Your task to perform on an android device: install app "LiveIn - Share Your Moment" Image 0: 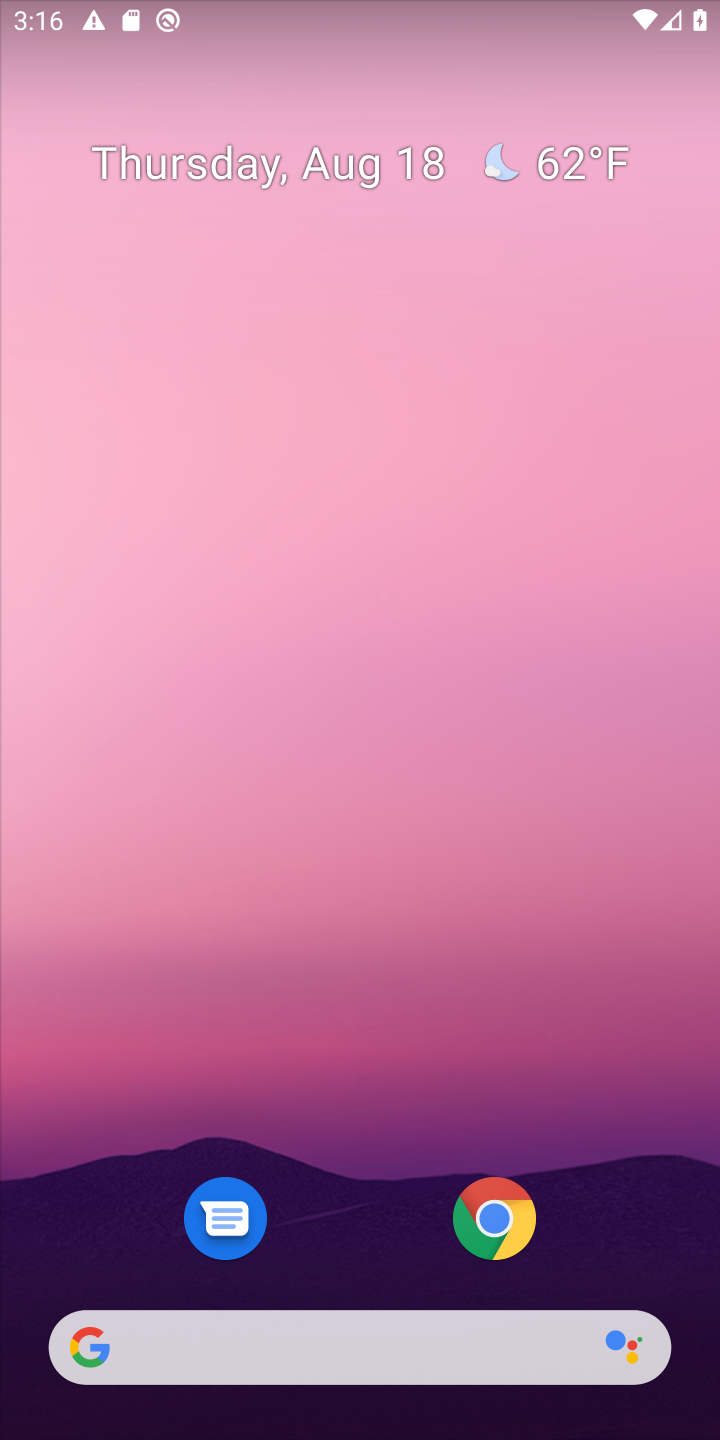
Step 0: drag from (352, 1147) to (327, 376)
Your task to perform on an android device: install app "LiveIn - Share Your Moment" Image 1: 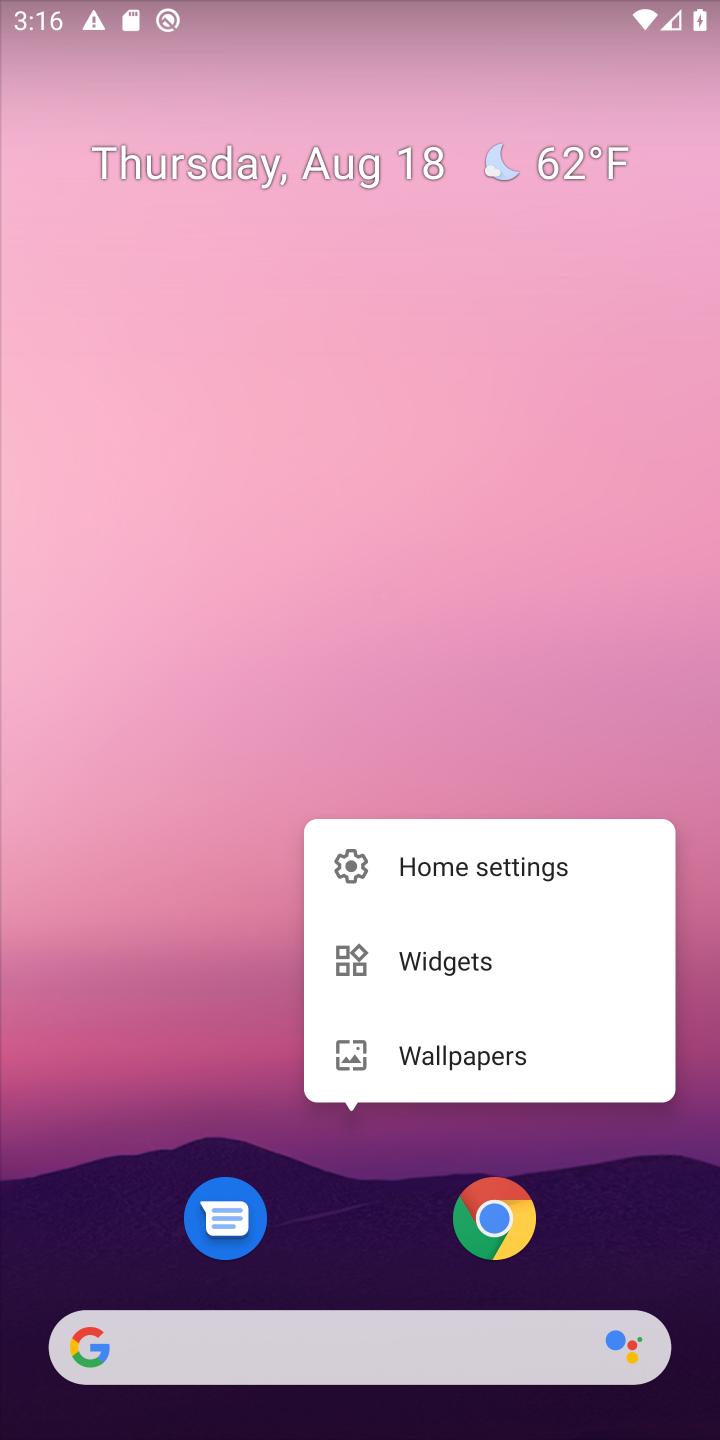
Step 1: click (242, 490)
Your task to perform on an android device: install app "LiveIn - Share Your Moment" Image 2: 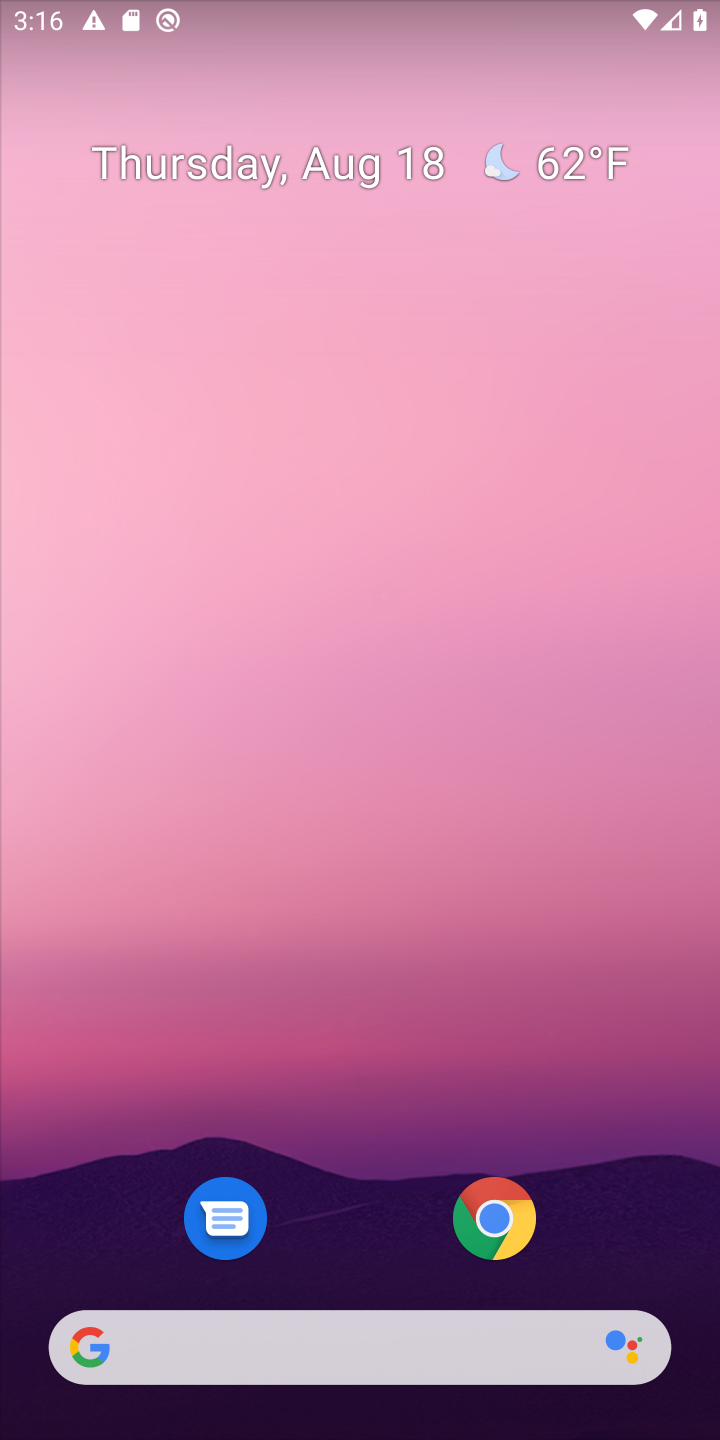
Step 2: drag from (310, 1157) to (373, 314)
Your task to perform on an android device: install app "LiveIn - Share Your Moment" Image 3: 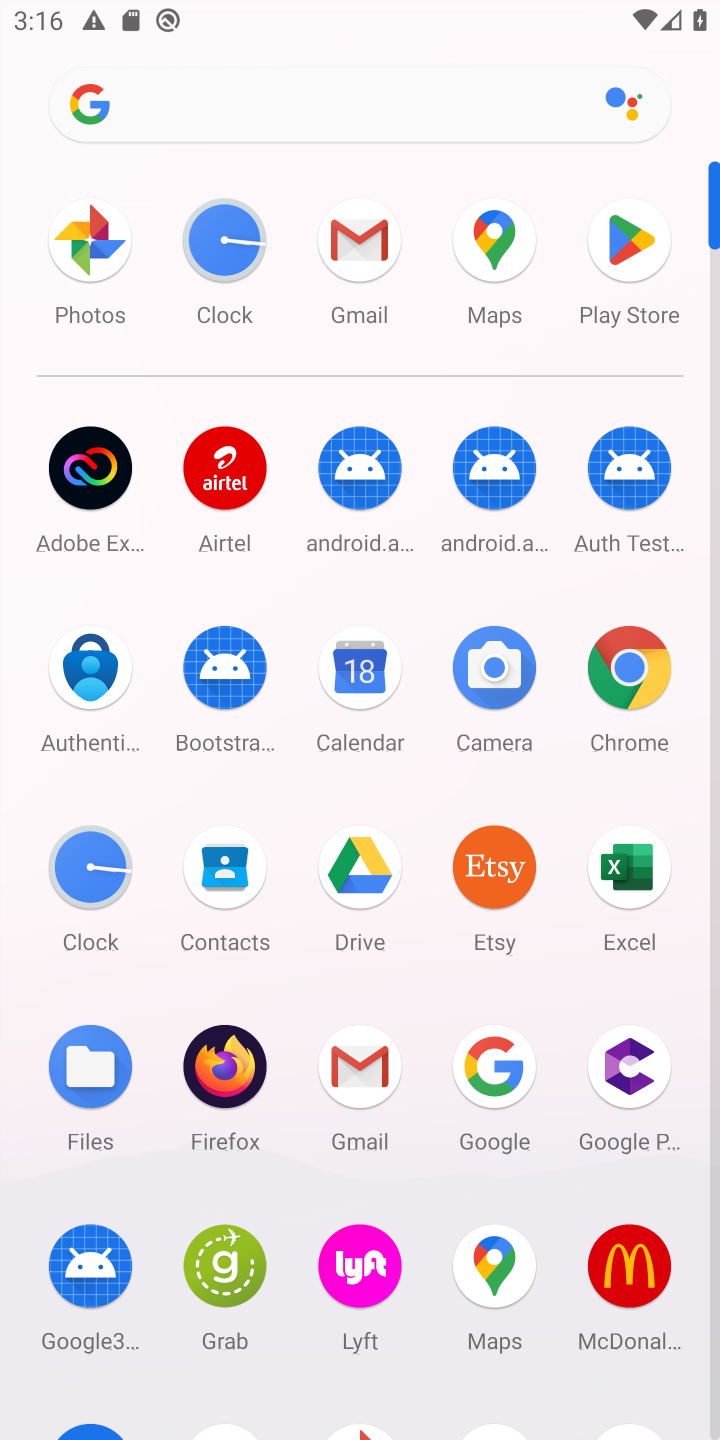
Step 3: click (635, 253)
Your task to perform on an android device: install app "LiveIn - Share Your Moment" Image 4: 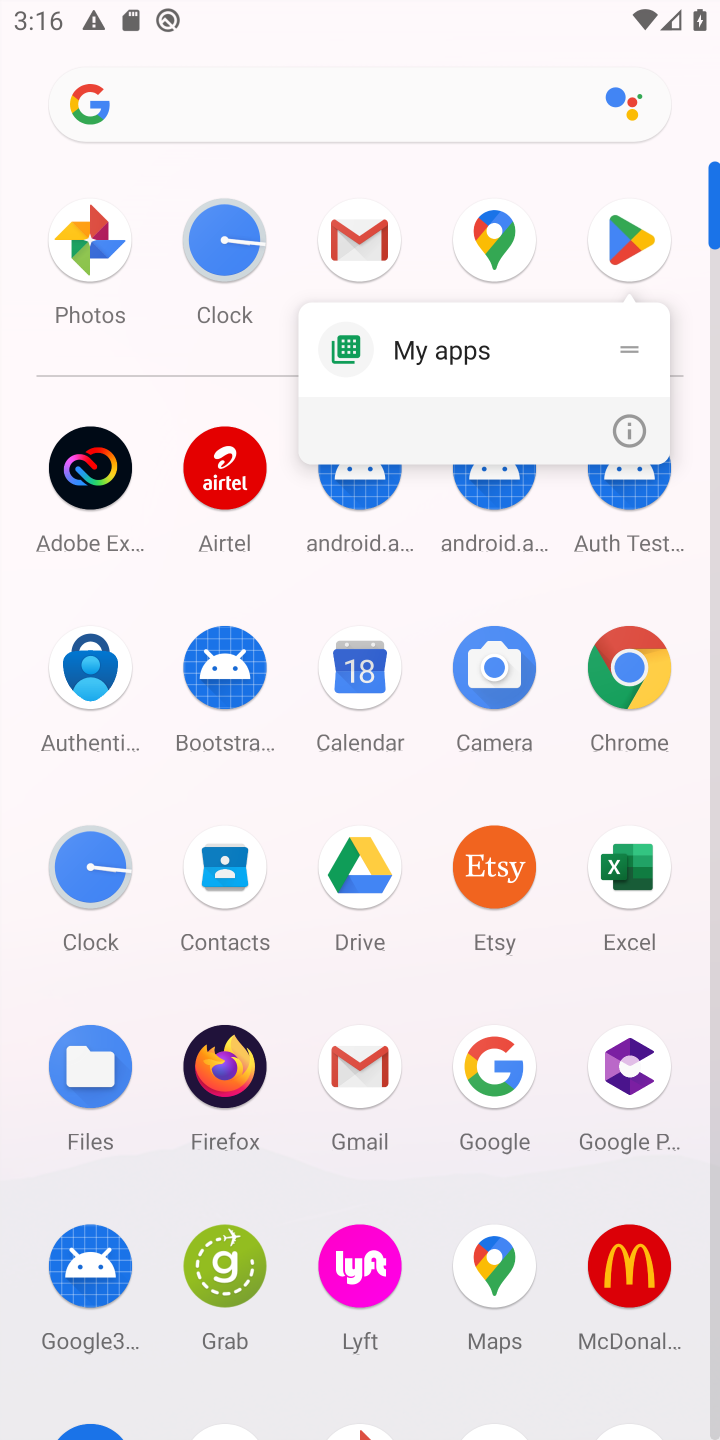
Step 4: click (616, 219)
Your task to perform on an android device: install app "LiveIn - Share Your Moment" Image 5: 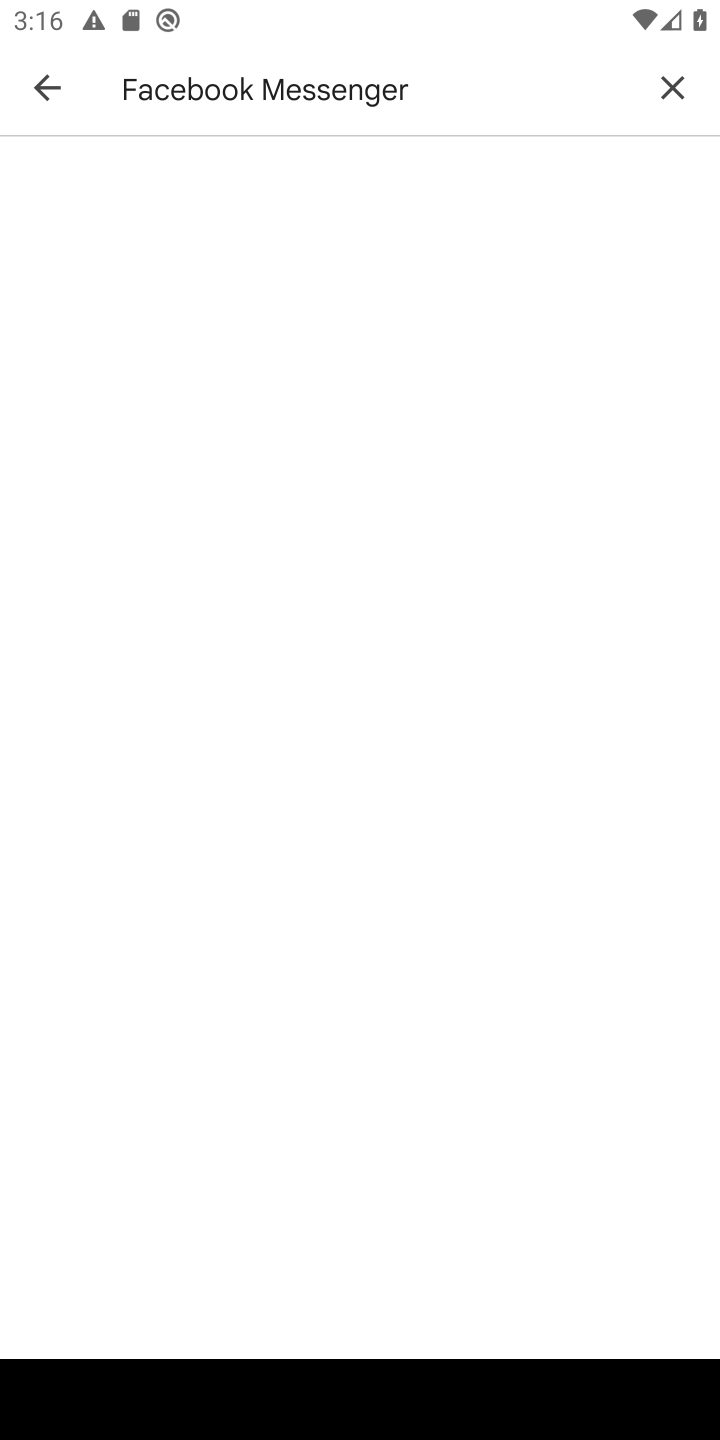
Step 5: click (711, 69)
Your task to perform on an android device: install app "LiveIn - Share Your Moment" Image 6: 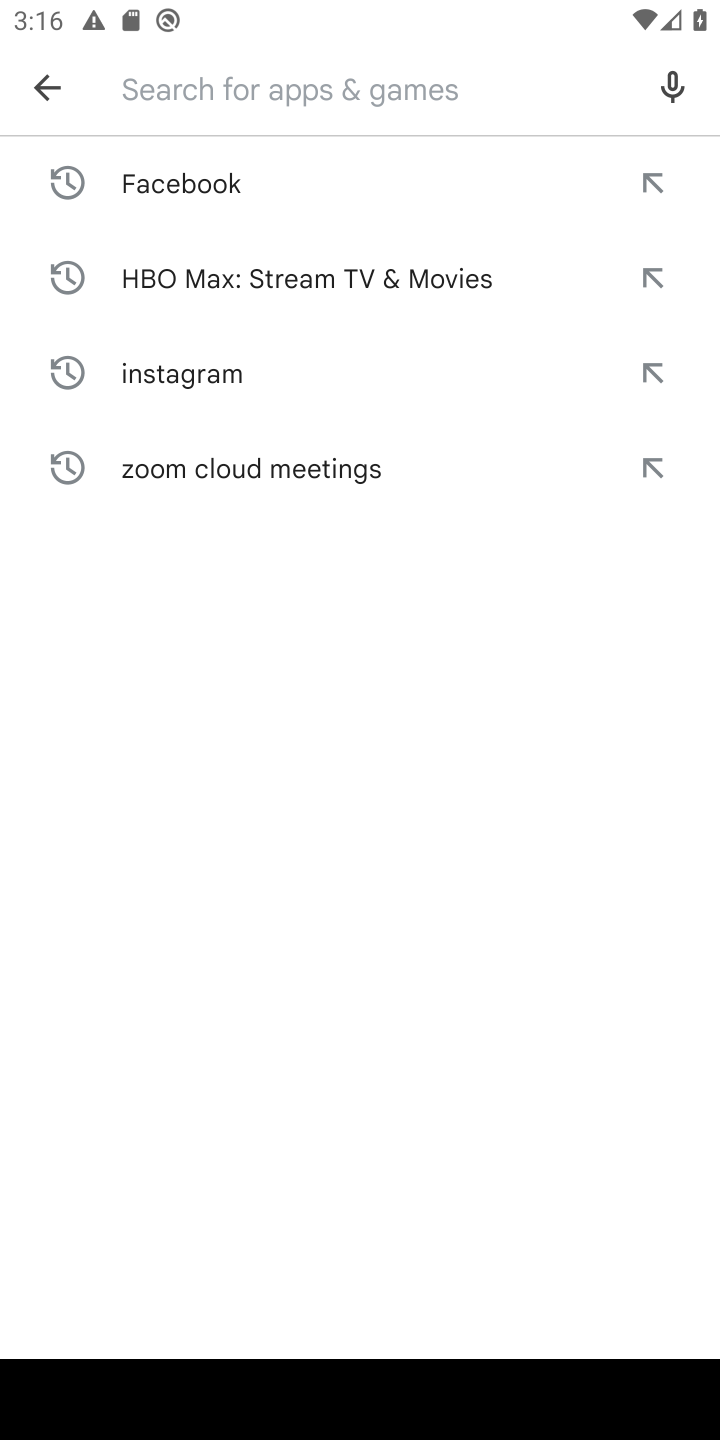
Step 6: click (669, 78)
Your task to perform on an android device: install app "LiveIn - Share Your Moment" Image 7: 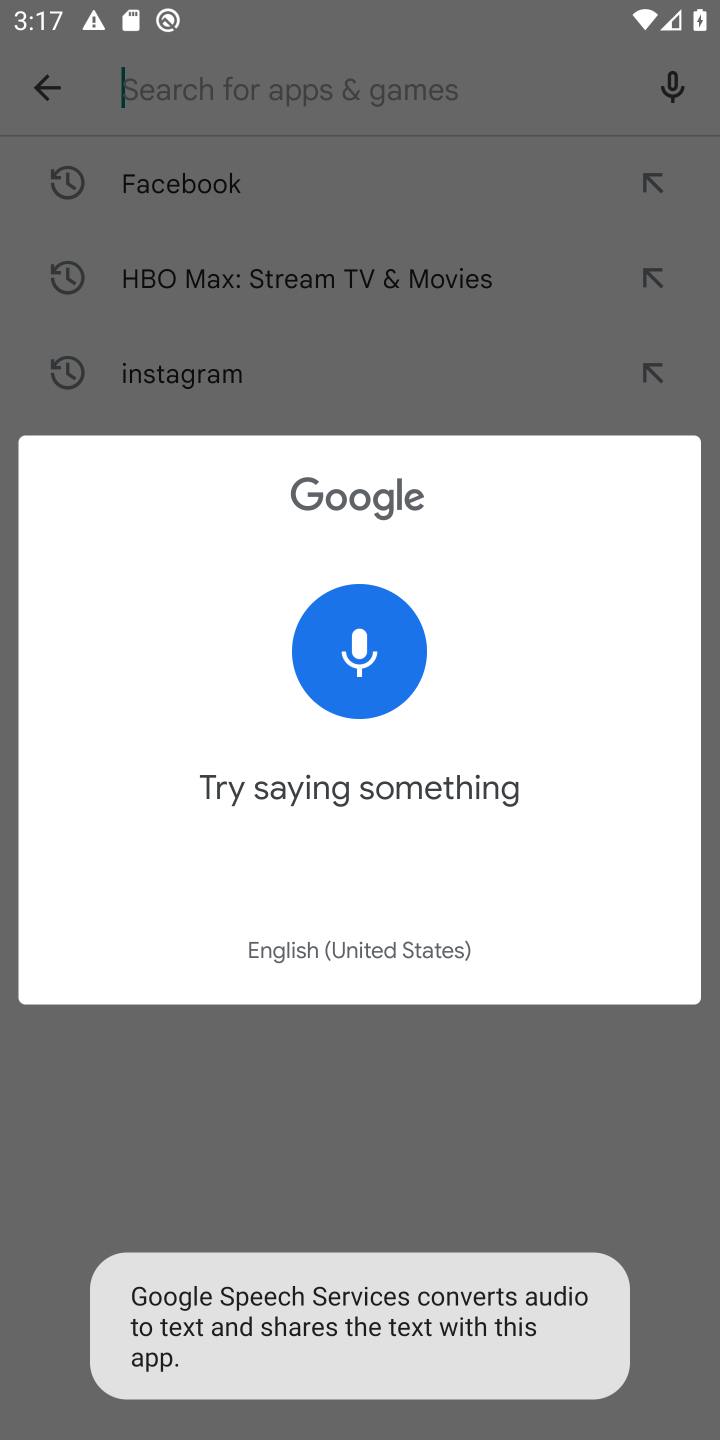
Step 7: click (518, 85)
Your task to perform on an android device: install app "LiveIn - Share Your Moment" Image 8: 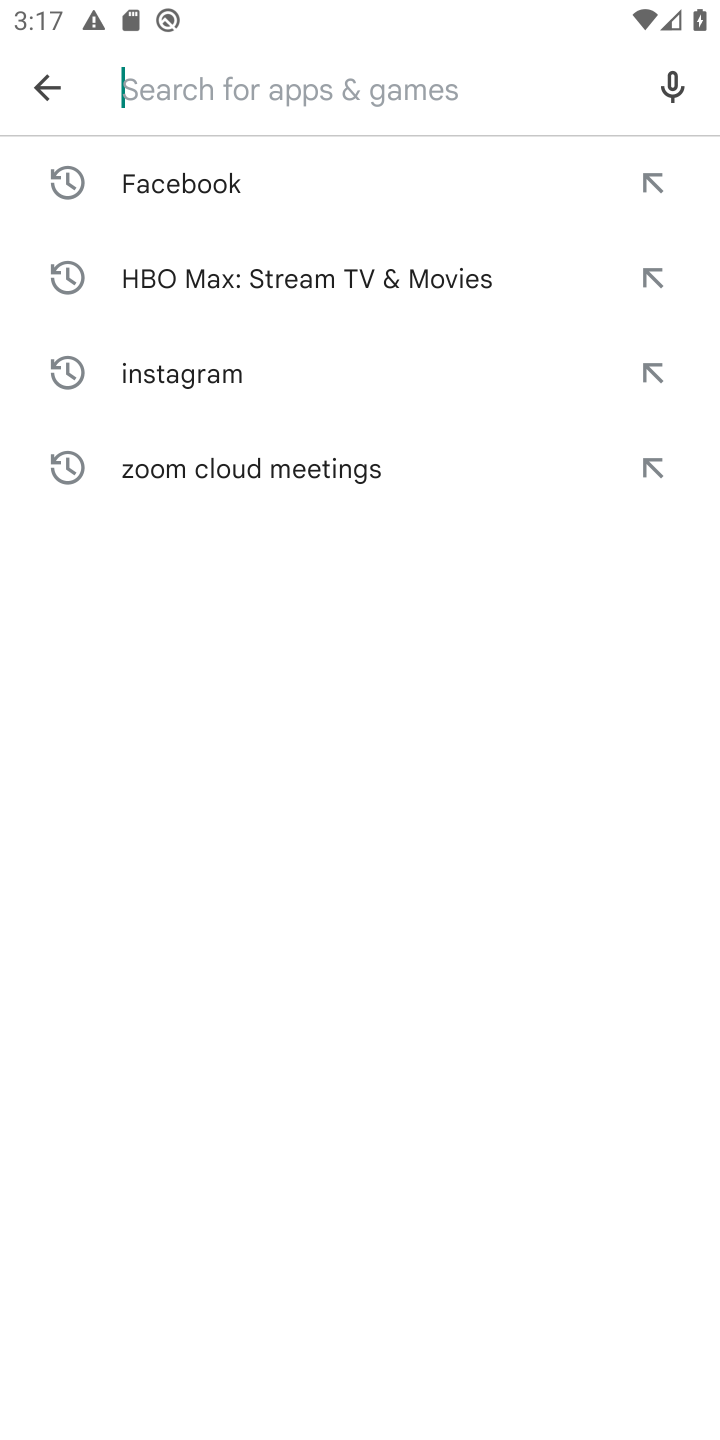
Step 8: type "LiveIn - Share Your Moment"
Your task to perform on an android device: install app "LiveIn - Share Your Moment" Image 9: 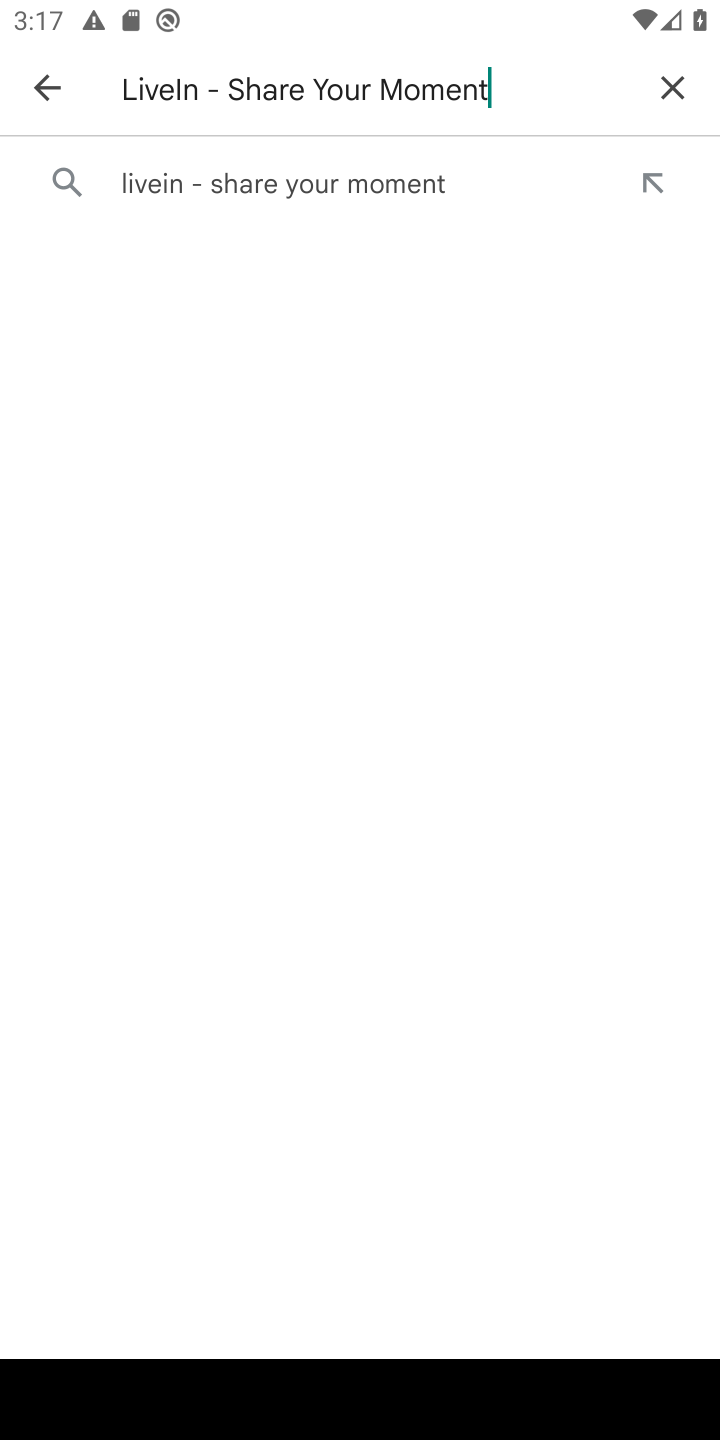
Step 9: click (238, 181)
Your task to perform on an android device: install app "LiveIn - Share Your Moment" Image 10: 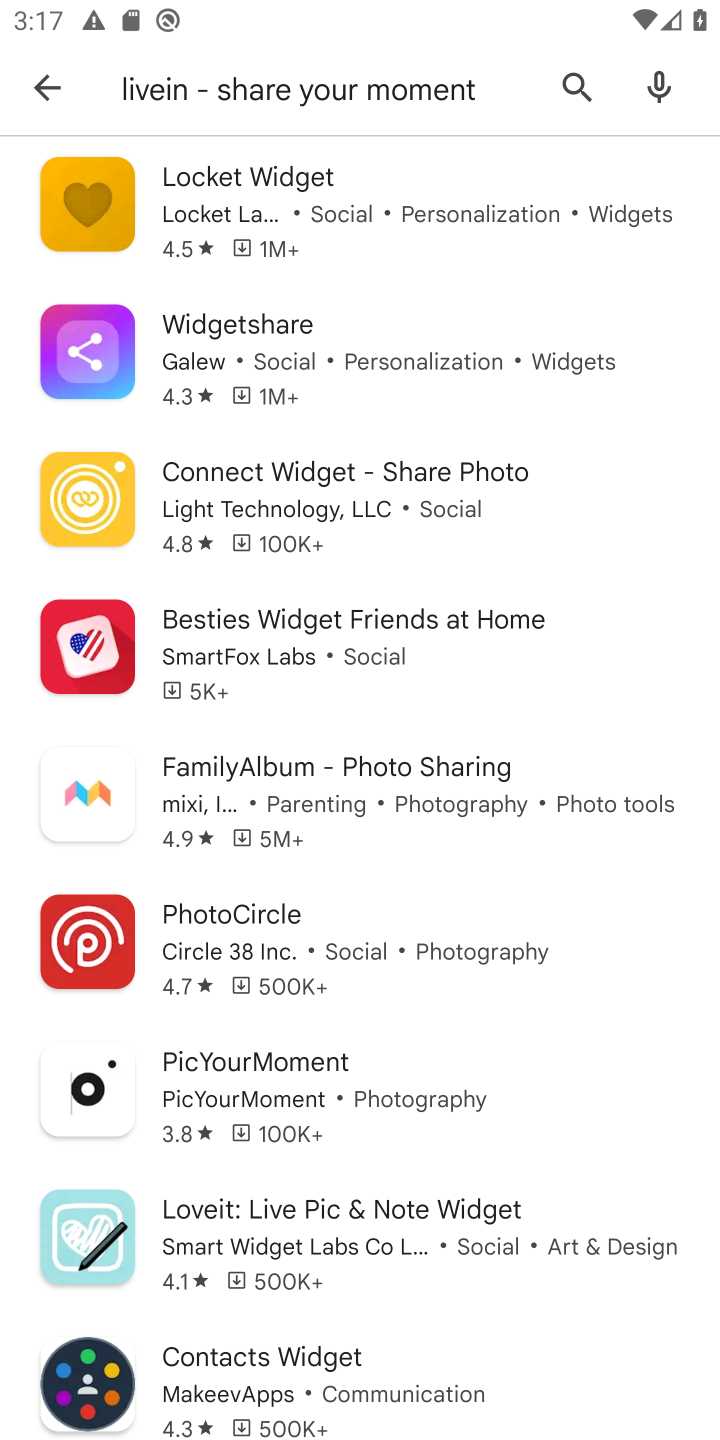
Step 10: task complete